Your task to perform on an android device: Open location settings Image 0: 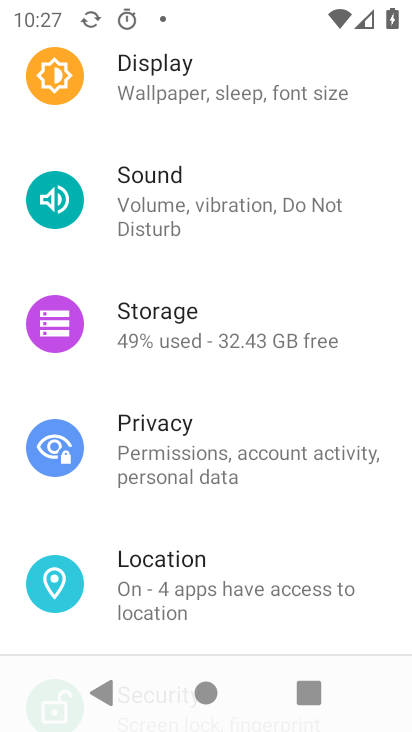
Step 0: click (183, 559)
Your task to perform on an android device: Open location settings Image 1: 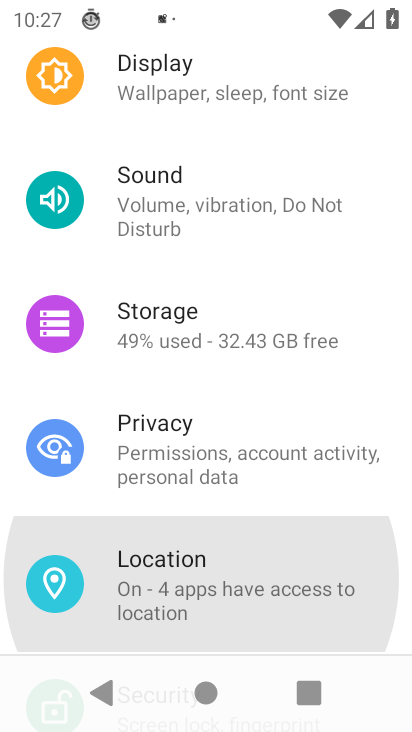
Step 1: click (183, 559)
Your task to perform on an android device: Open location settings Image 2: 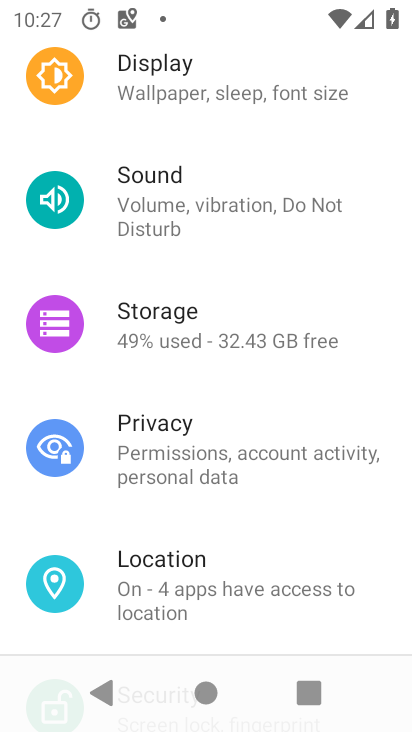
Step 2: click (184, 559)
Your task to perform on an android device: Open location settings Image 3: 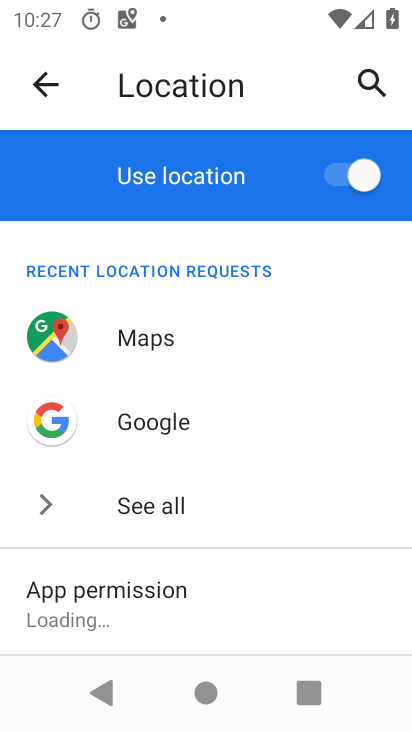
Step 3: task complete